Your task to perform on an android device: Set the phone to "Do not disturb". Image 0: 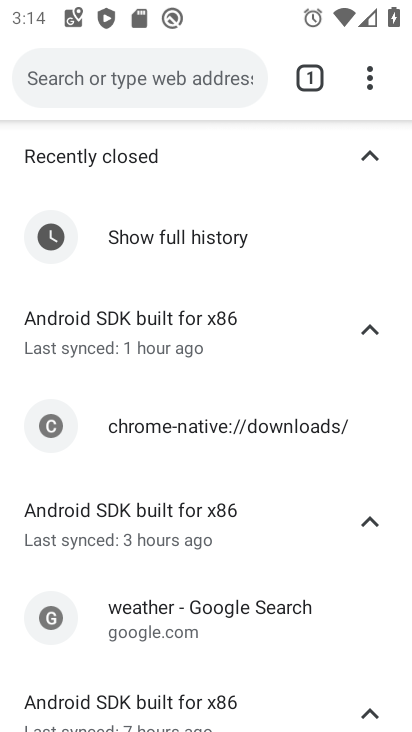
Step 0: press home button
Your task to perform on an android device: Set the phone to "Do not disturb". Image 1: 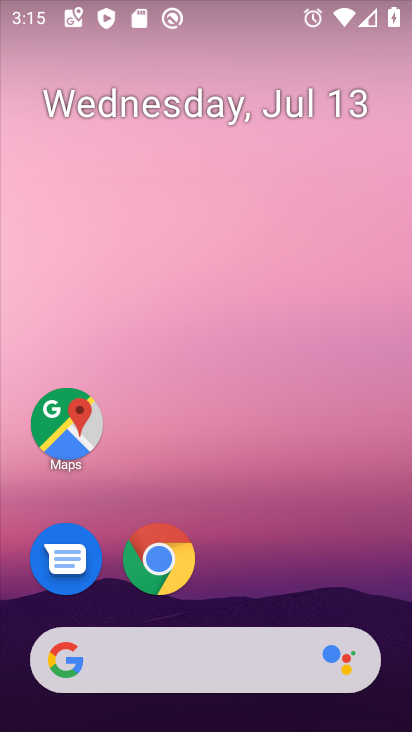
Step 1: drag from (360, 566) to (382, 194)
Your task to perform on an android device: Set the phone to "Do not disturb". Image 2: 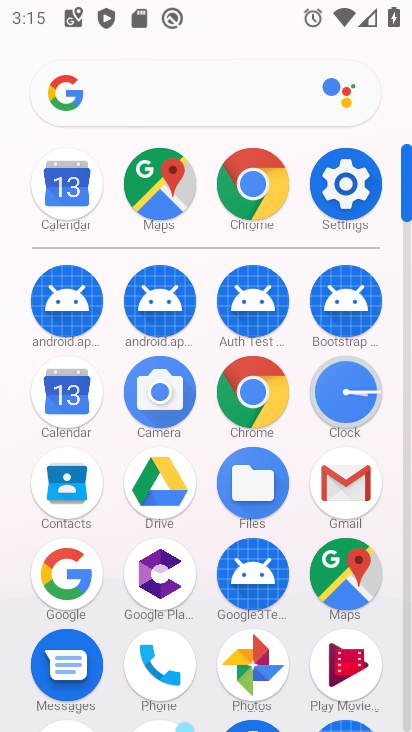
Step 2: click (348, 188)
Your task to perform on an android device: Set the phone to "Do not disturb". Image 3: 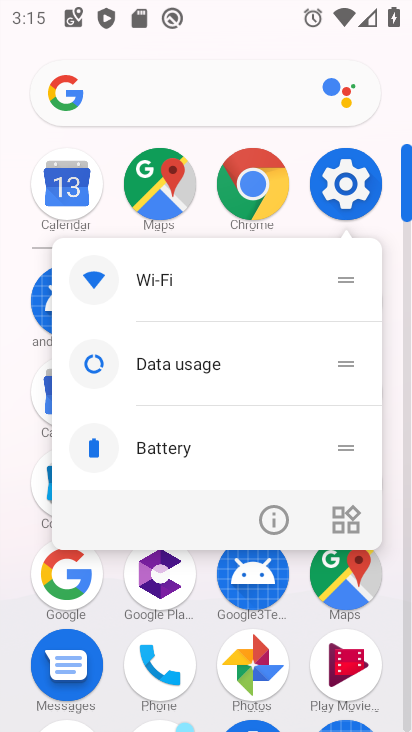
Step 3: click (348, 188)
Your task to perform on an android device: Set the phone to "Do not disturb". Image 4: 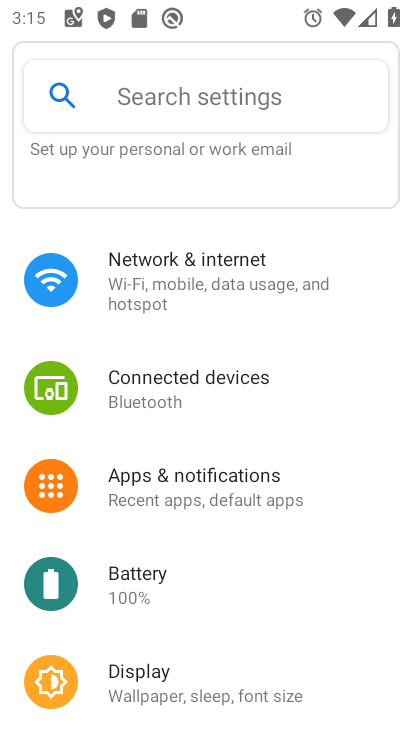
Step 4: drag from (346, 426) to (355, 355)
Your task to perform on an android device: Set the phone to "Do not disturb". Image 5: 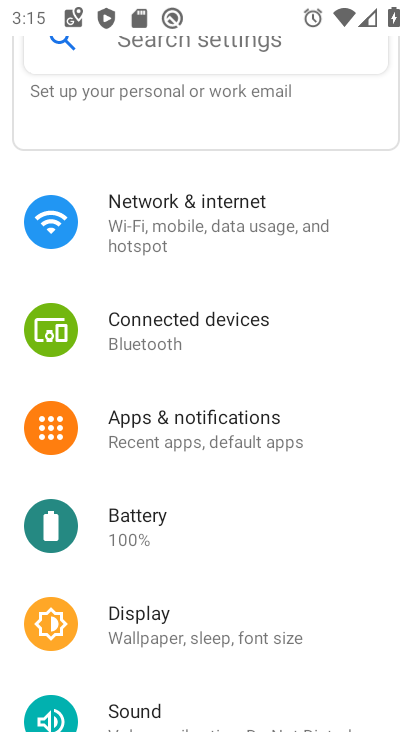
Step 5: drag from (358, 436) to (366, 369)
Your task to perform on an android device: Set the phone to "Do not disturb". Image 6: 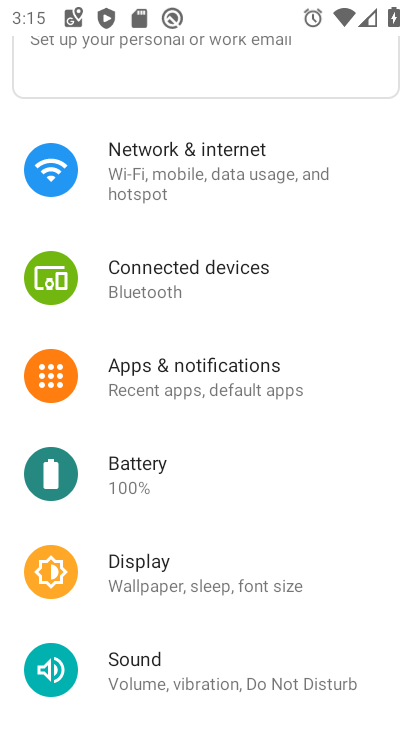
Step 6: drag from (356, 463) to (363, 383)
Your task to perform on an android device: Set the phone to "Do not disturb". Image 7: 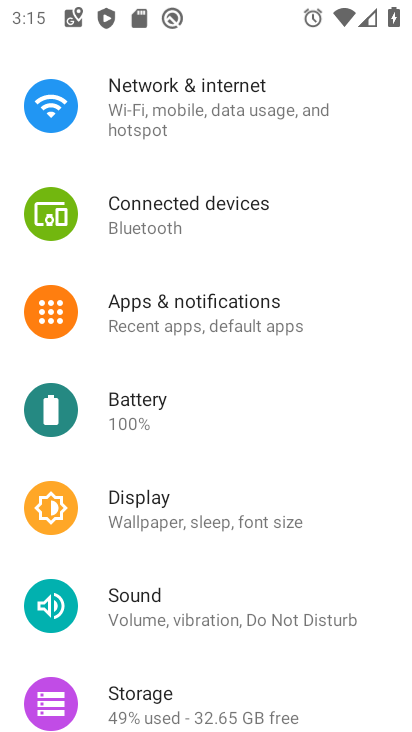
Step 7: drag from (367, 469) to (371, 393)
Your task to perform on an android device: Set the phone to "Do not disturb". Image 8: 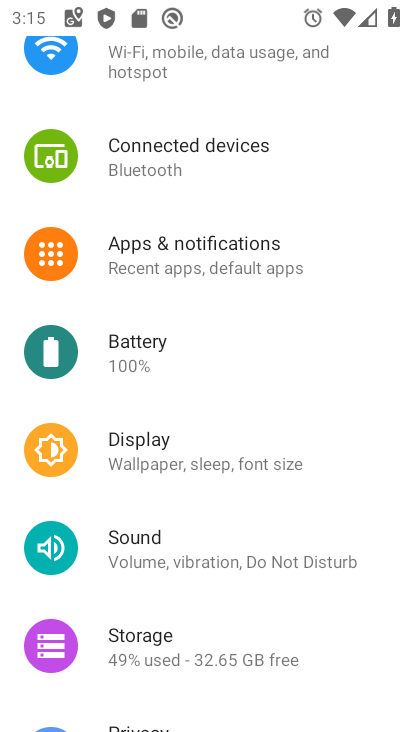
Step 8: drag from (361, 489) to (363, 380)
Your task to perform on an android device: Set the phone to "Do not disturb". Image 9: 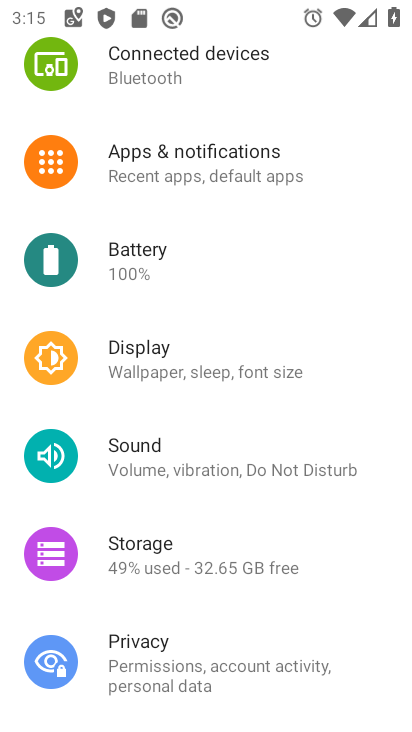
Step 9: drag from (364, 517) to (365, 390)
Your task to perform on an android device: Set the phone to "Do not disturb". Image 10: 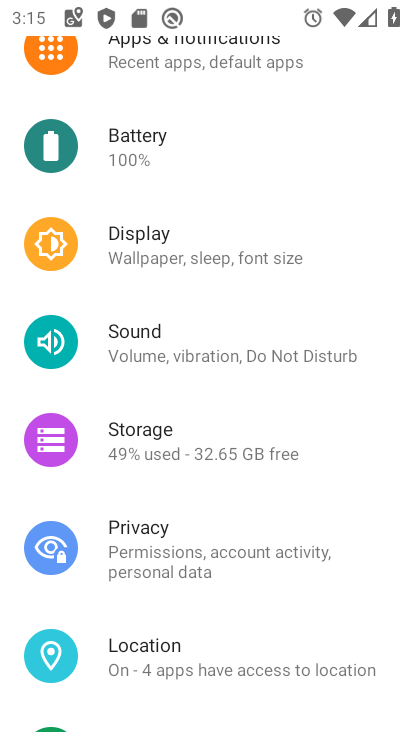
Step 10: drag from (363, 520) to (366, 414)
Your task to perform on an android device: Set the phone to "Do not disturb". Image 11: 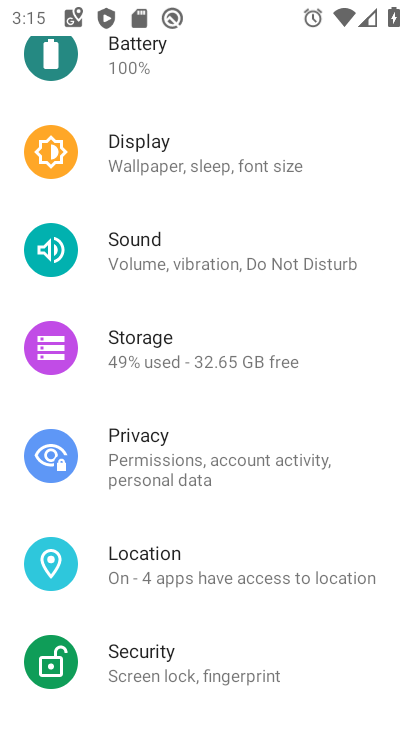
Step 11: drag from (347, 478) to (351, 380)
Your task to perform on an android device: Set the phone to "Do not disturb". Image 12: 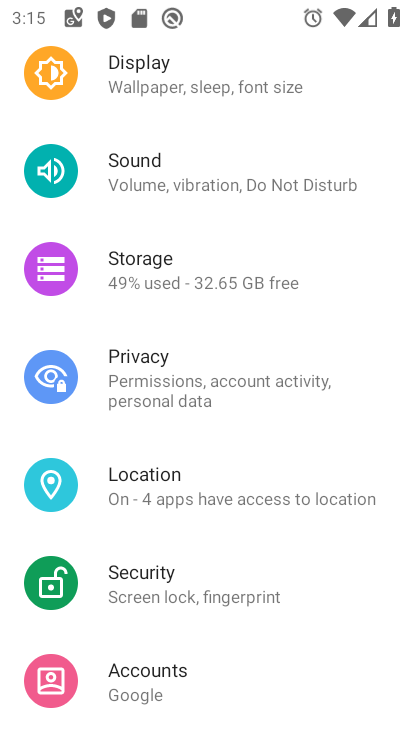
Step 12: click (347, 181)
Your task to perform on an android device: Set the phone to "Do not disturb". Image 13: 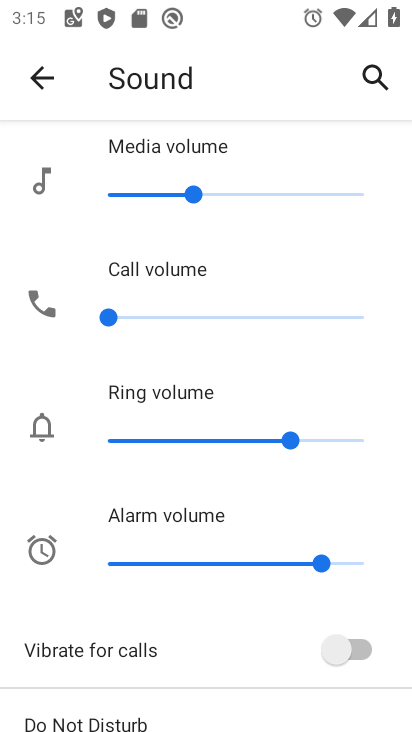
Step 13: drag from (348, 507) to (366, 338)
Your task to perform on an android device: Set the phone to "Do not disturb". Image 14: 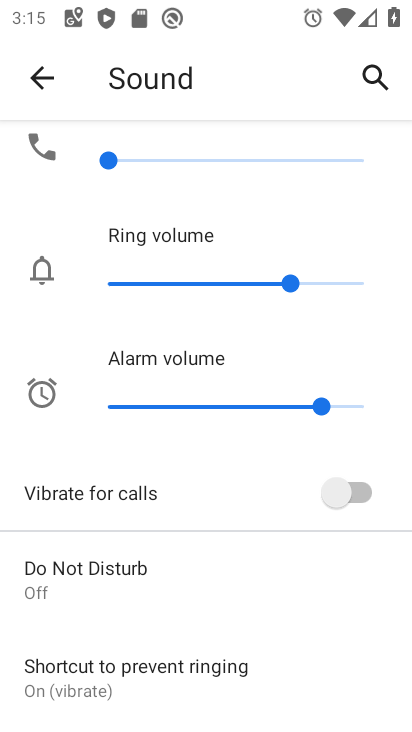
Step 14: drag from (352, 576) to (365, 463)
Your task to perform on an android device: Set the phone to "Do not disturb". Image 15: 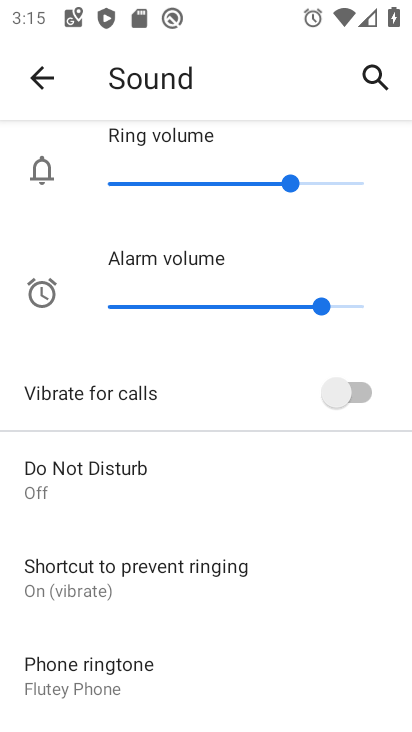
Step 15: drag from (341, 590) to (341, 408)
Your task to perform on an android device: Set the phone to "Do not disturb". Image 16: 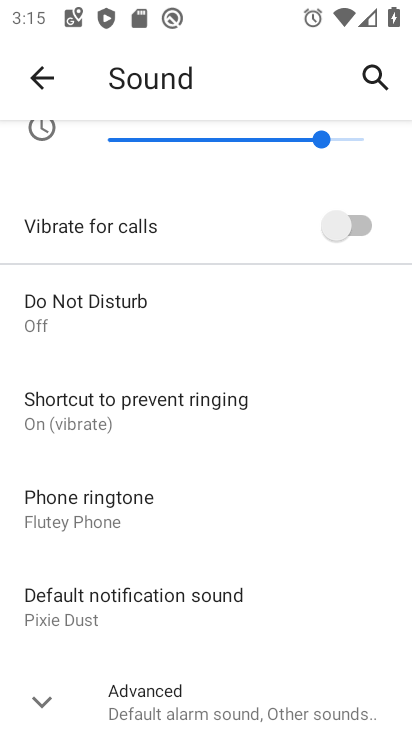
Step 16: click (137, 318)
Your task to perform on an android device: Set the phone to "Do not disturb". Image 17: 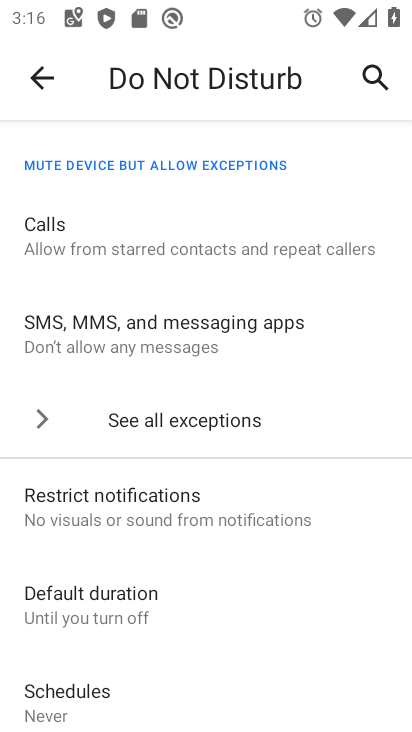
Step 17: drag from (286, 544) to (303, 371)
Your task to perform on an android device: Set the phone to "Do not disturb". Image 18: 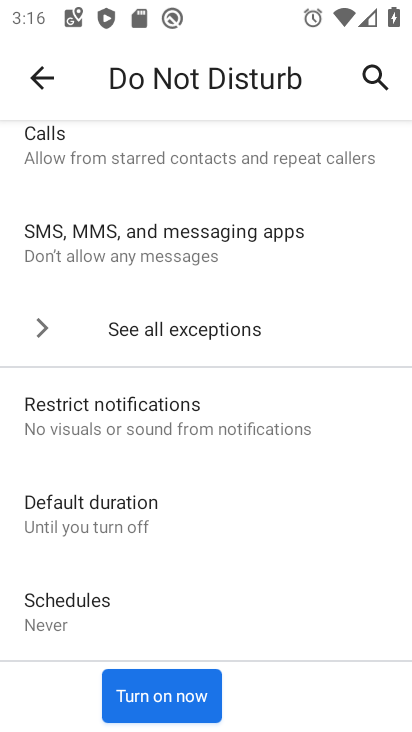
Step 18: click (182, 694)
Your task to perform on an android device: Set the phone to "Do not disturb". Image 19: 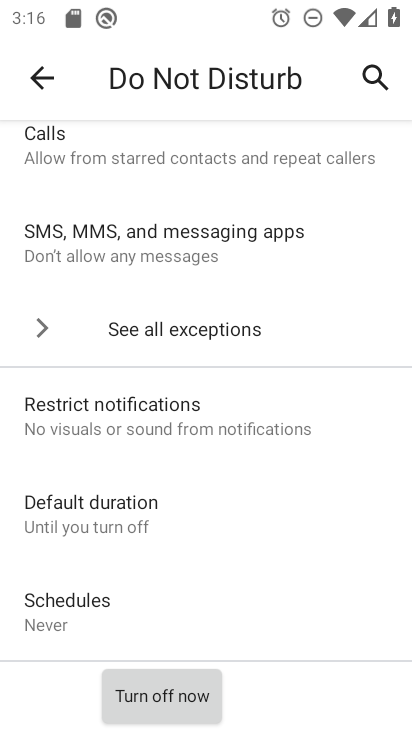
Step 19: task complete